Your task to perform on an android device: Search for Mexican restaurants on Maps Image 0: 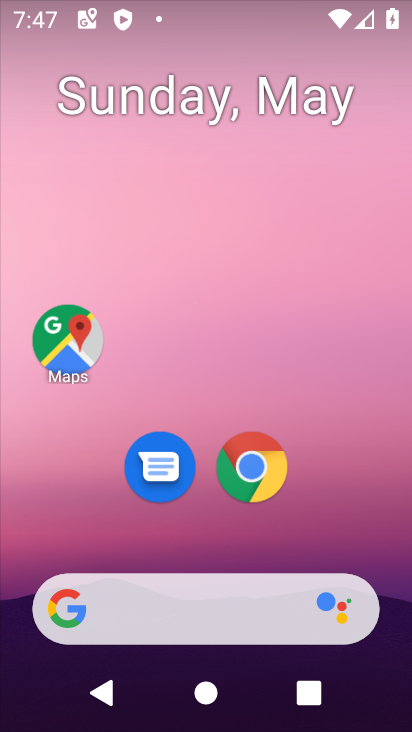
Step 0: click (85, 355)
Your task to perform on an android device: Search for Mexican restaurants on Maps Image 1: 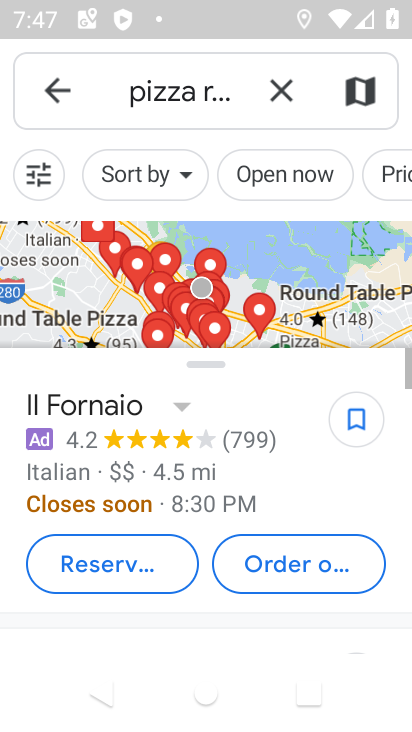
Step 1: click (270, 88)
Your task to perform on an android device: Search for Mexican restaurants on Maps Image 2: 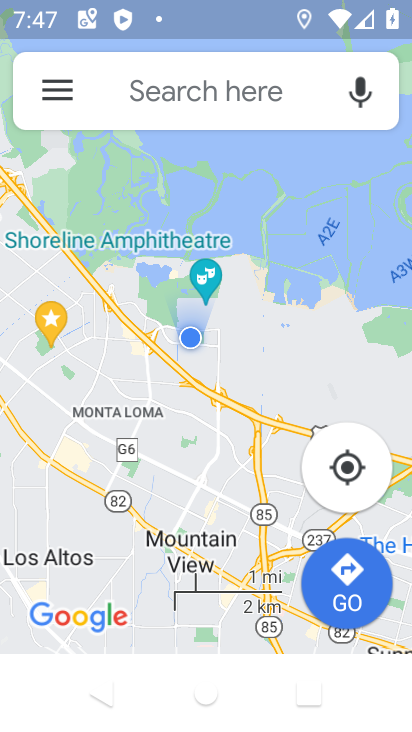
Step 2: click (157, 89)
Your task to perform on an android device: Search for Mexican restaurants on Maps Image 3: 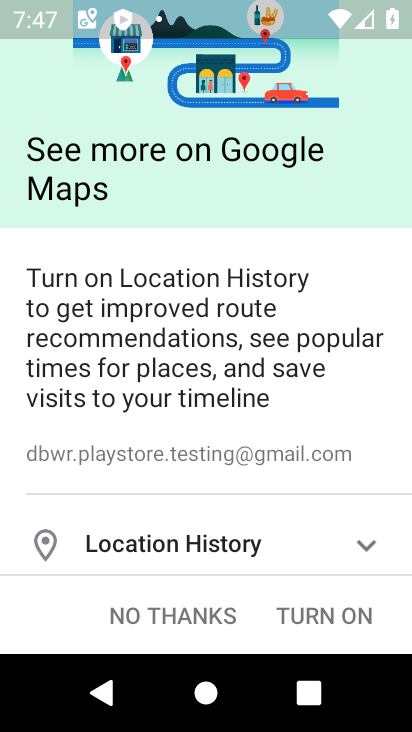
Step 3: click (186, 616)
Your task to perform on an android device: Search for Mexican restaurants on Maps Image 4: 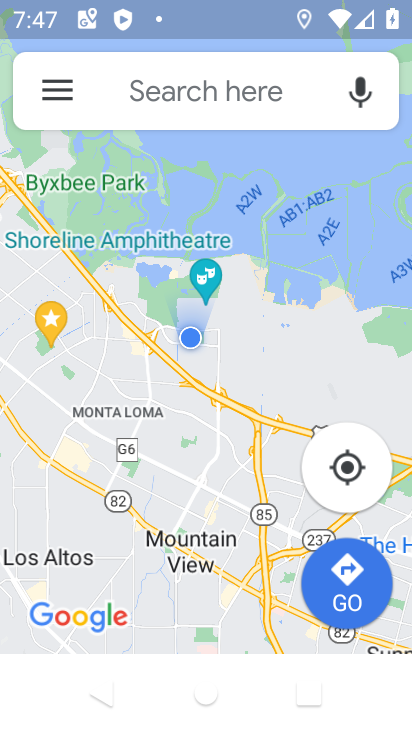
Step 4: click (188, 90)
Your task to perform on an android device: Search for Mexican restaurants on Maps Image 5: 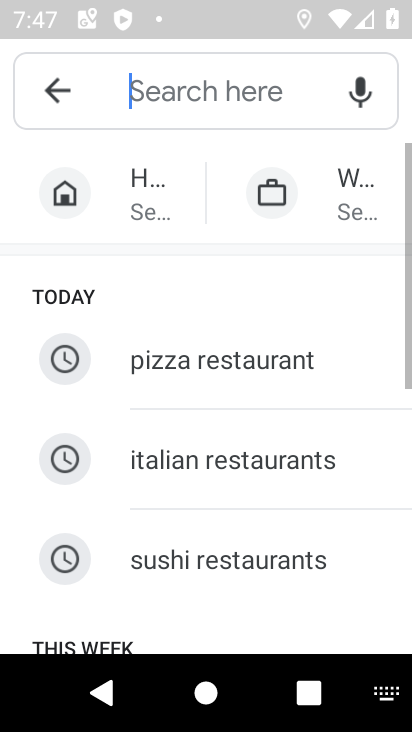
Step 5: drag from (186, 565) to (282, 181)
Your task to perform on an android device: Search for Mexican restaurants on Maps Image 6: 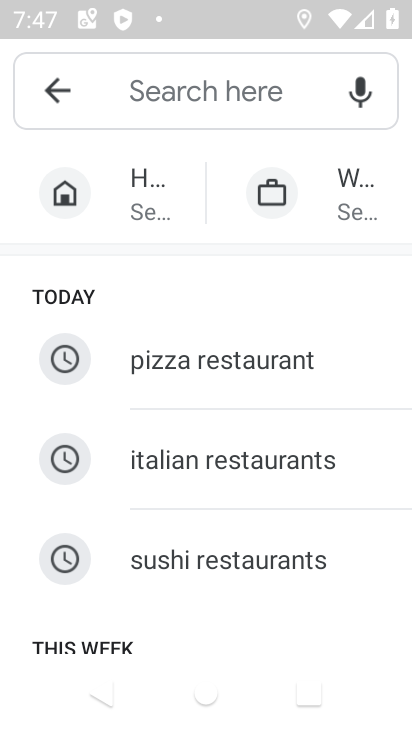
Step 6: drag from (42, 598) to (234, 209)
Your task to perform on an android device: Search for Mexican restaurants on Maps Image 7: 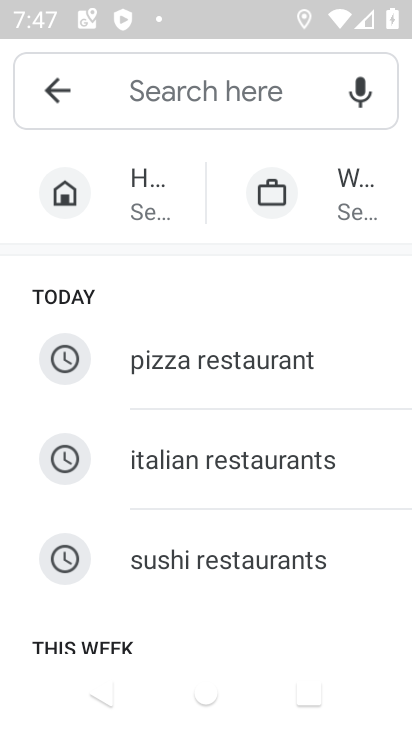
Step 7: drag from (24, 564) to (263, 196)
Your task to perform on an android device: Search for Mexican restaurants on Maps Image 8: 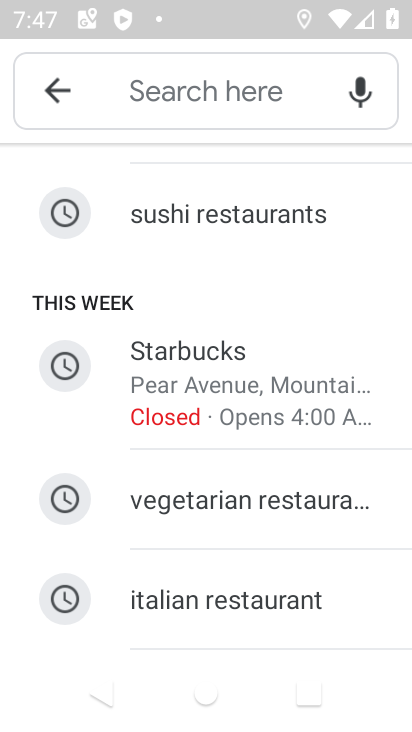
Step 8: drag from (82, 570) to (273, 195)
Your task to perform on an android device: Search for Mexican restaurants on Maps Image 9: 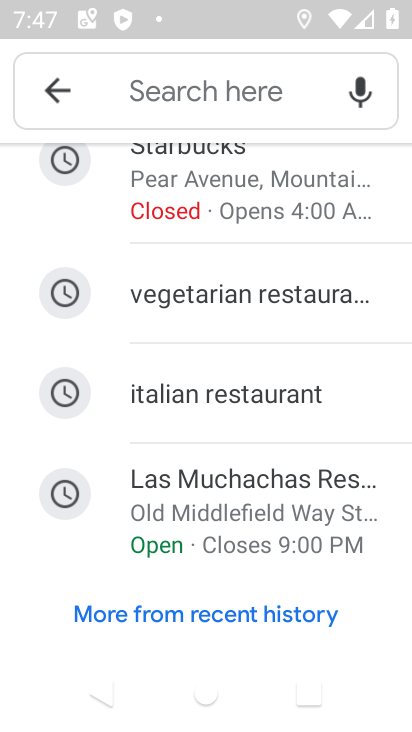
Step 9: drag from (24, 404) to (162, 212)
Your task to perform on an android device: Search for Mexican restaurants on Maps Image 10: 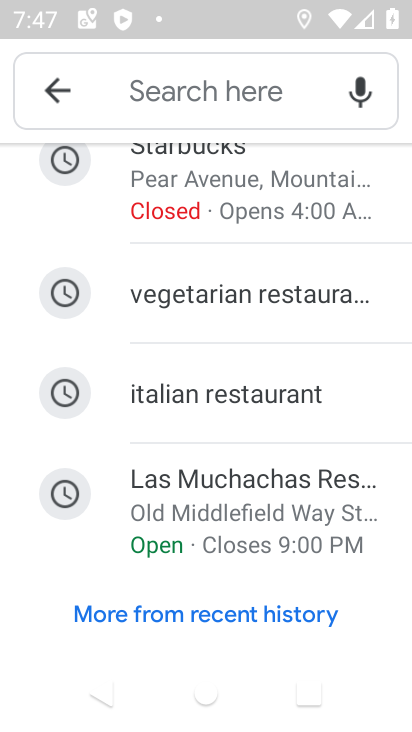
Step 10: click (176, 76)
Your task to perform on an android device: Search for Mexican restaurants on Maps Image 11: 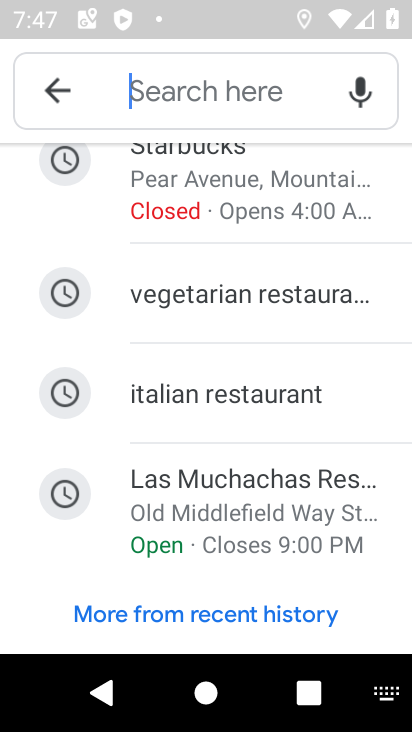
Step 11: type "Mexican restaurants "
Your task to perform on an android device: Search for Mexican restaurants on Maps Image 12: 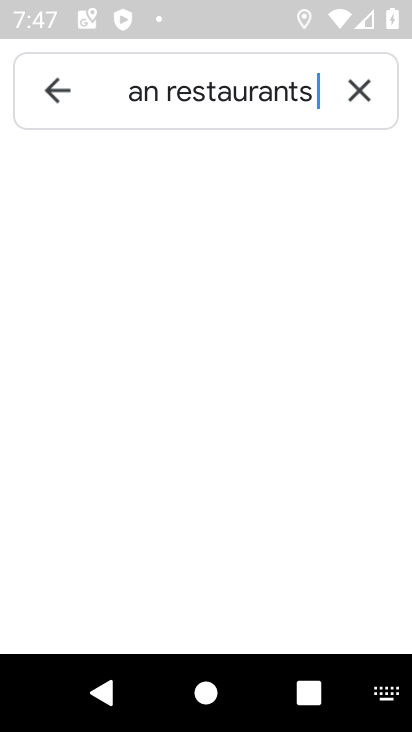
Step 12: type ""
Your task to perform on an android device: Search for Mexican restaurants on Maps Image 13: 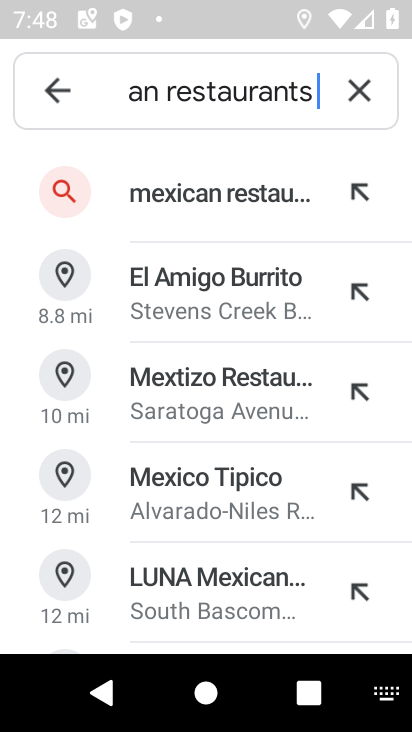
Step 13: task complete